Your task to perform on an android device: change notification settings in the gmail app Image 0: 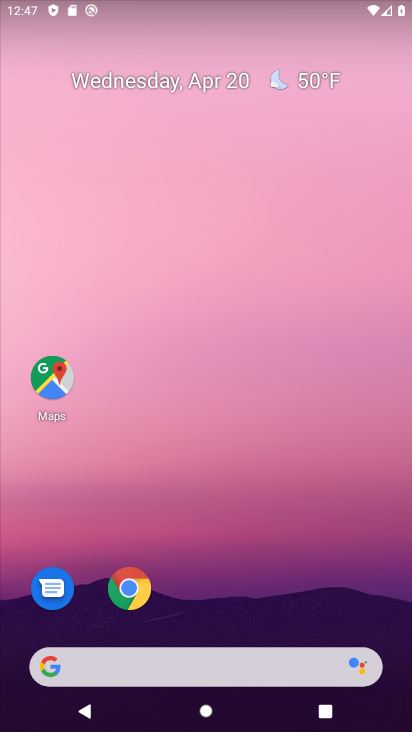
Step 0: drag from (208, 645) to (289, 279)
Your task to perform on an android device: change notification settings in the gmail app Image 1: 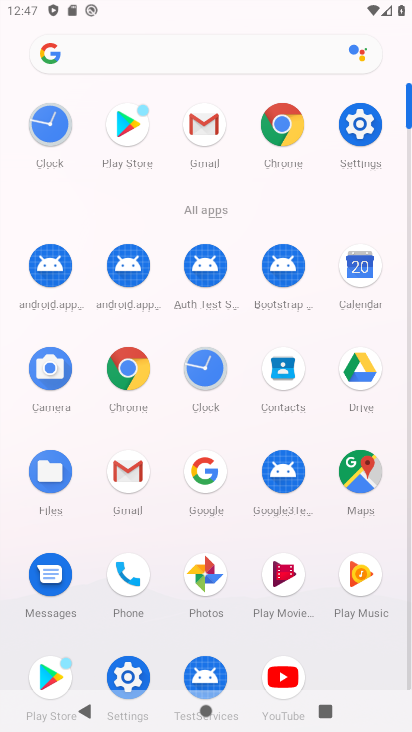
Step 1: click (128, 475)
Your task to perform on an android device: change notification settings in the gmail app Image 2: 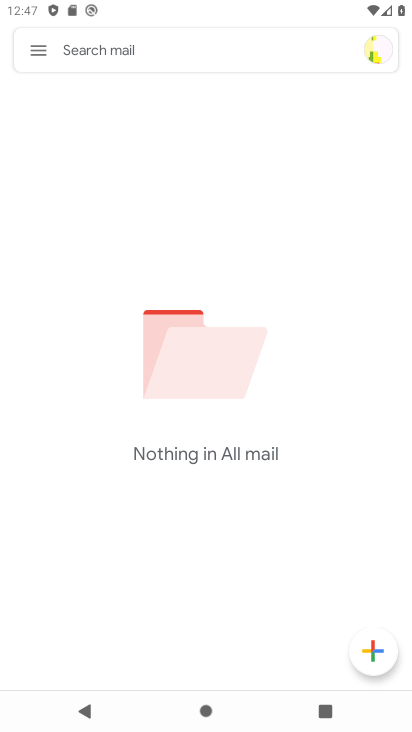
Step 2: click (38, 51)
Your task to perform on an android device: change notification settings in the gmail app Image 3: 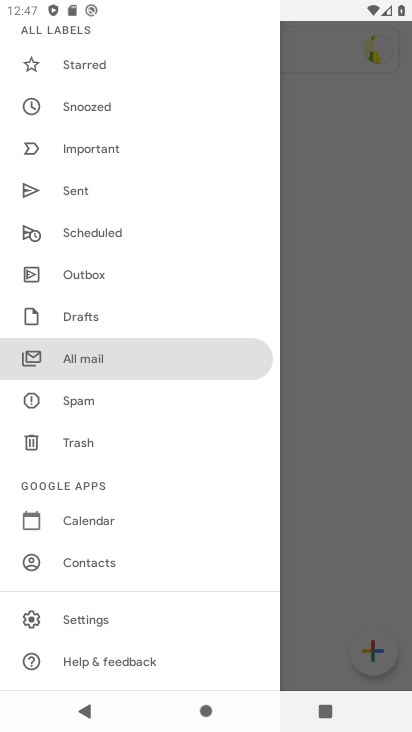
Step 3: click (88, 615)
Your task to perform on an android device: change notification settings in the gmail app Image 4: 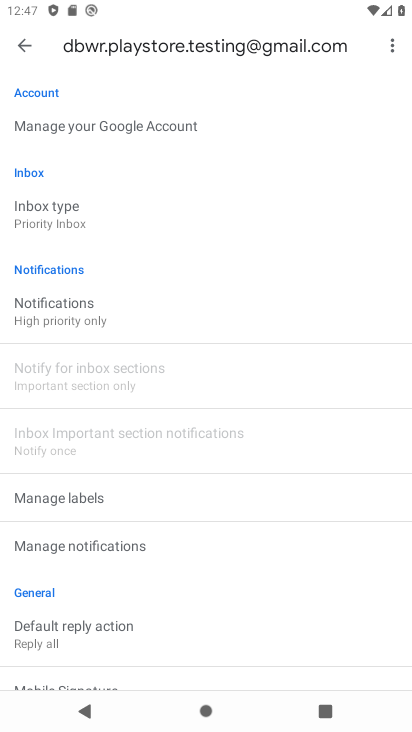
Step 4: click (38, 319)
Your task to perform on an android device: change notification settings in the gmail app Image 5: 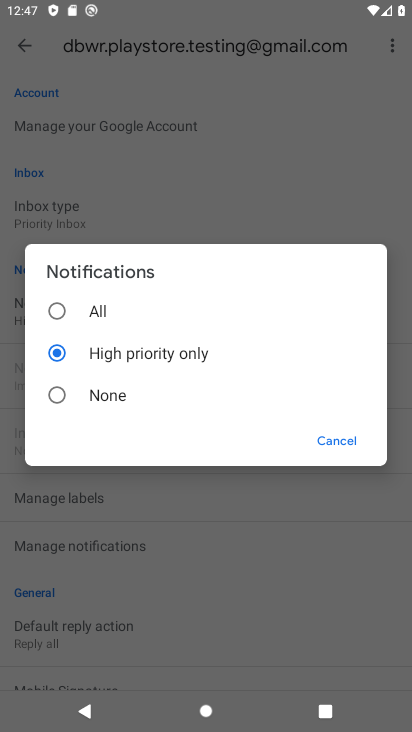
Step 5: click (88, 310)
Your task to perform on an android device: change notification settings in the gmail app Image 6: 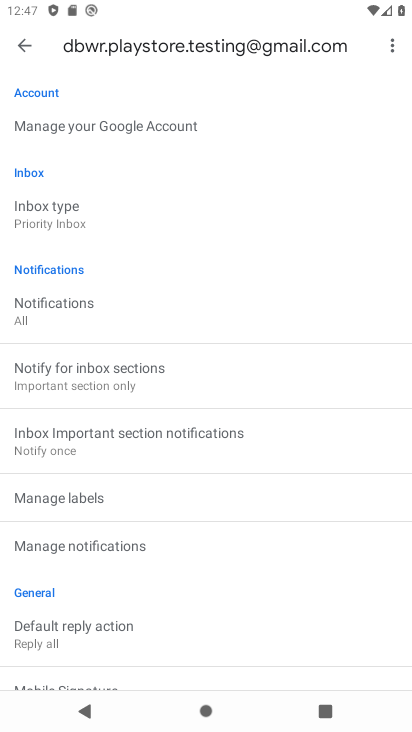
Step 6: click (85, 376)
Your task to perform on an android device: change notification settings in the gmail app Image 7: 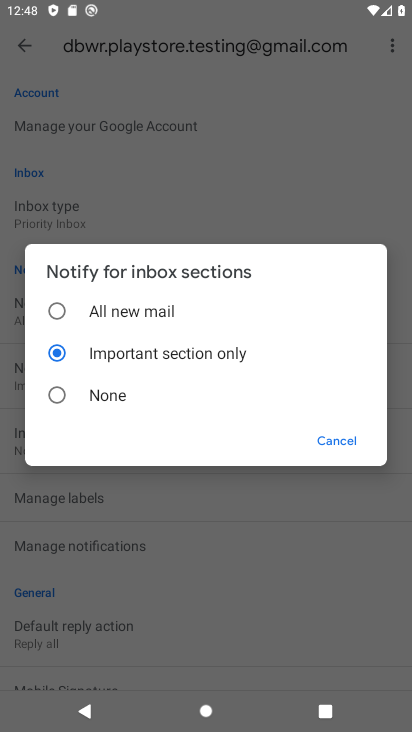
Step 7: click (49, 302)
Your task to perform on an android device: change notification settings in the gmail app Image 8: 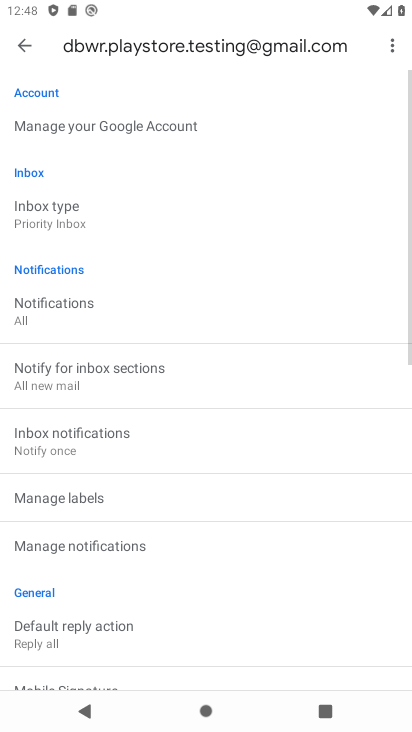
Step 8: click (49, 447)
Your task to perform on an android device: change notification settings in the gmail app Image 9: 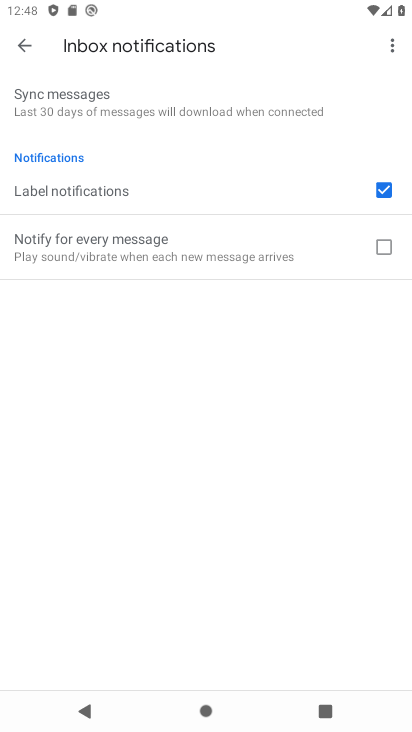
Step 9: click (381, 248)
Your task to perform on an android device: change notification settings in the gmail app Image 10: 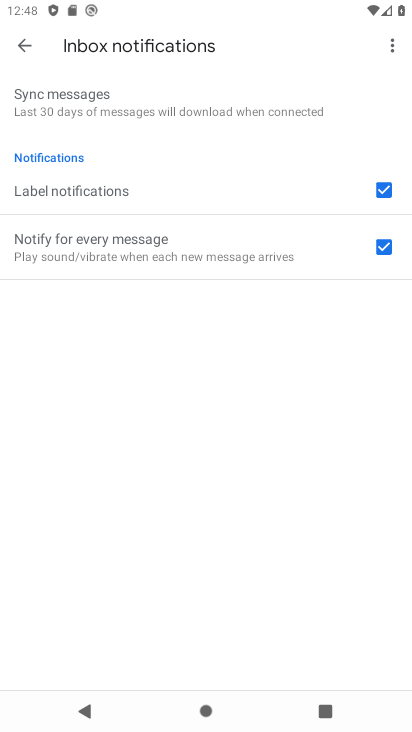
Step 10: click (19, 52)
Your task to perform on an android device: change notification settings in the gmail app Image 11: 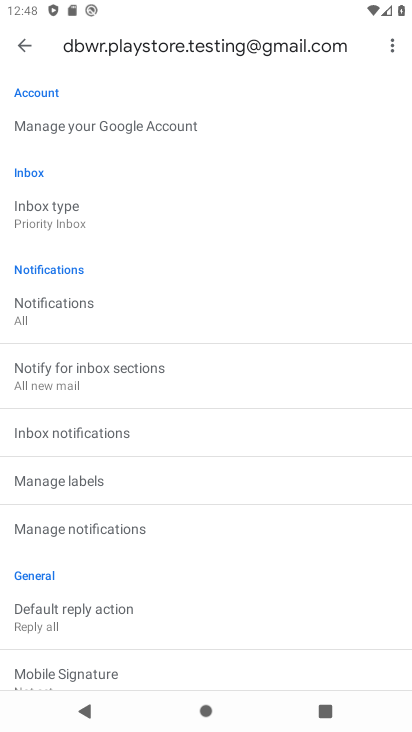
Step 11: click (111, 531)
Your task to perform on an android device: change notification settings in the gmail app Image 12: 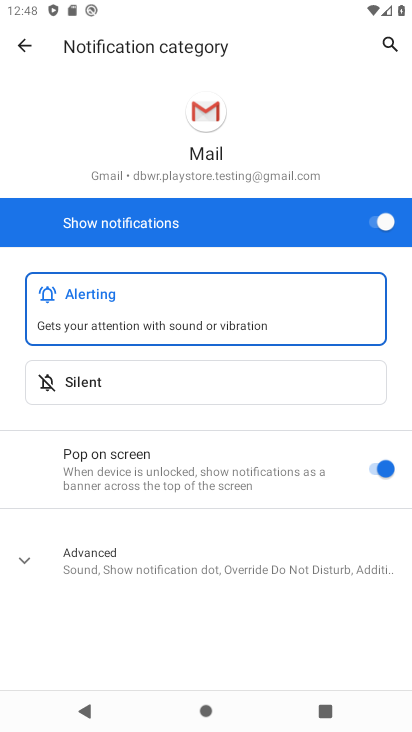
Step 12: click (371, 471)
Your task to perform on an android device: change notification settings in the gmail app Image 13: 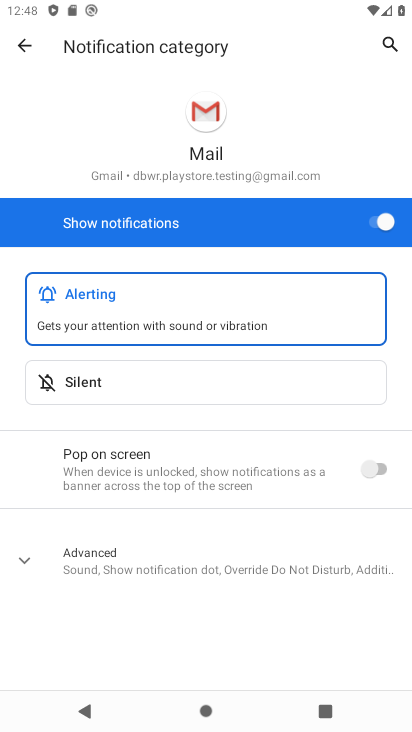
Step 13: task complete